Your task to perform on an android device: Go to internet settings Image 0: 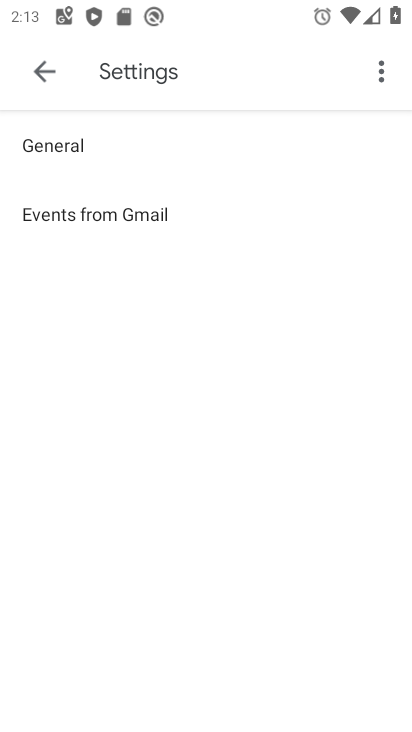
Step 0: press home button
Your task to perform on an android device: Go to internet settings Image 1: 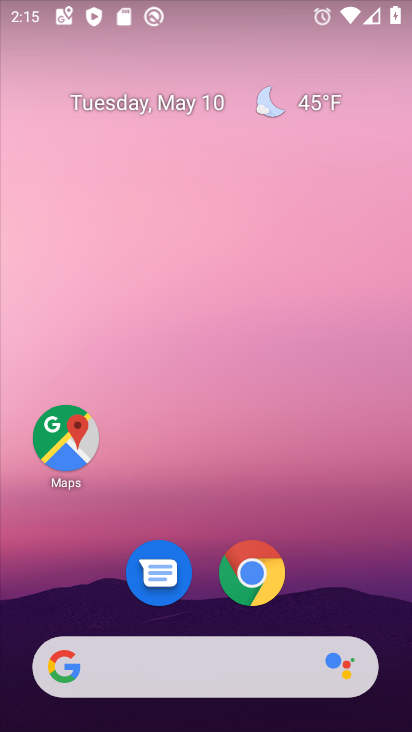
Step 1: drag from (272, 727) to (286, 187)
Your task to perform on an android device: Go to internet settings Image 2: 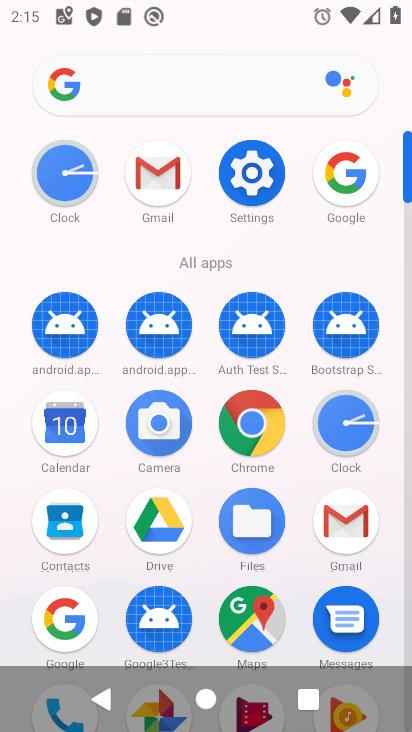
Step 2: click (241, 185)
Your task to perform on an android device: Go to internet settings Image 3: 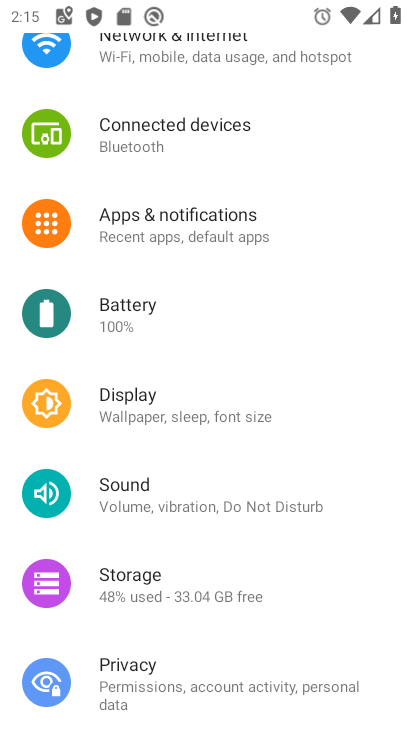
Step 3: drag from (323, 166) to (237, 676)
Your task to perform on an android device: Go to internet settings Image 4: 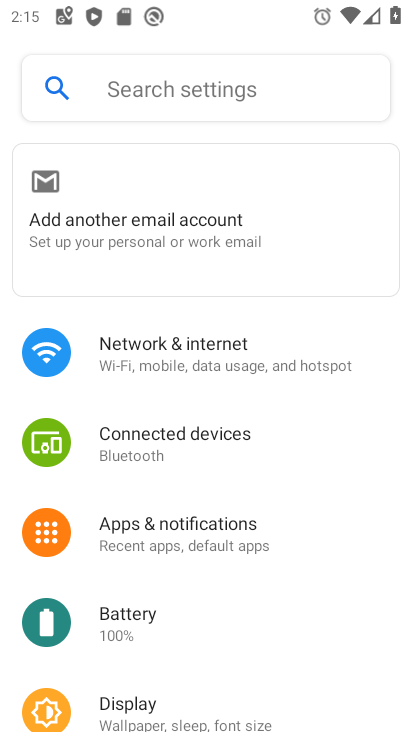
Step 4: click (256, 351)
Your task to perform on an android device: Go to internet settings Image 5: 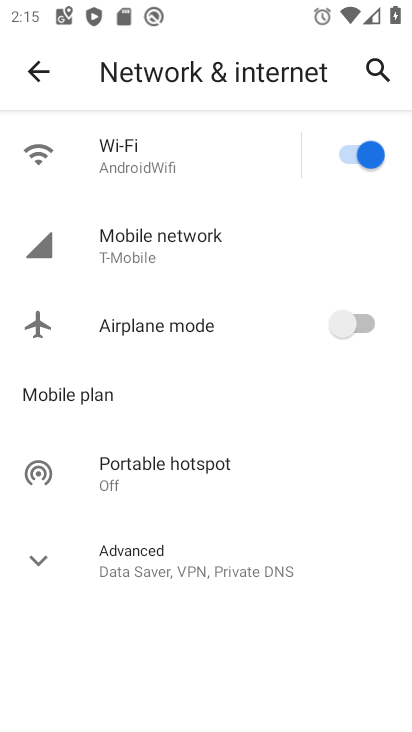
Step 5: task complete